Your task to perform on an android device: Open my contact list Image 0: 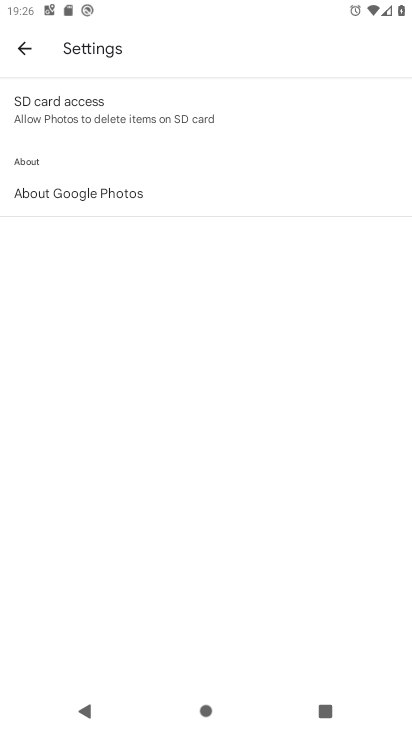
Step 0: press home button
Your task to perform on an android device: Open my contact list Image 1: 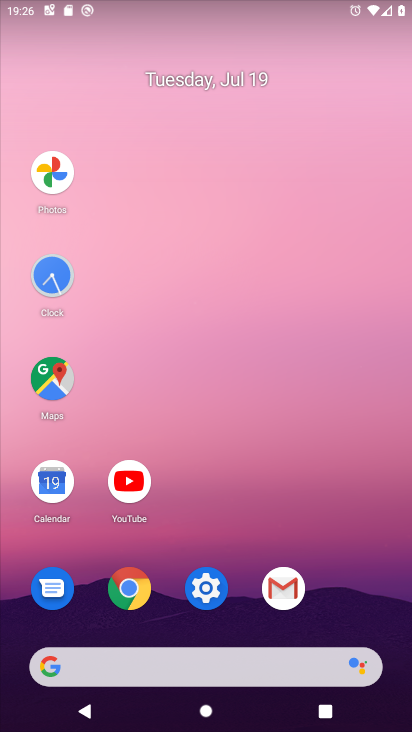
Step 1: drag from (215, 518) to (130, 45)
Your task to perform on an android device: Open my contact list Image 2: 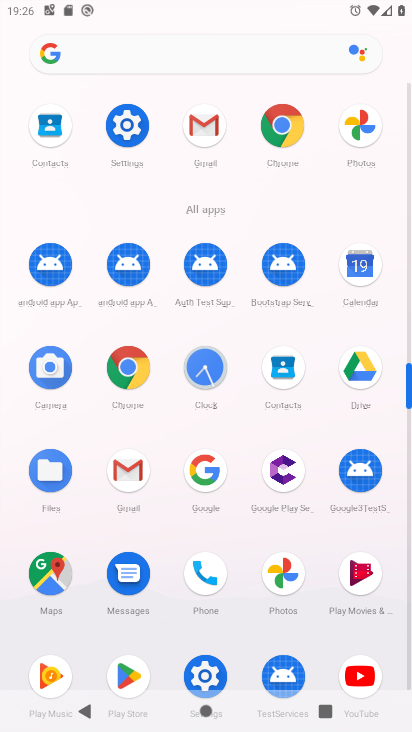
Step 2: click (276, 378)
Your task to perform on an android device: Open my contact list Image 3: 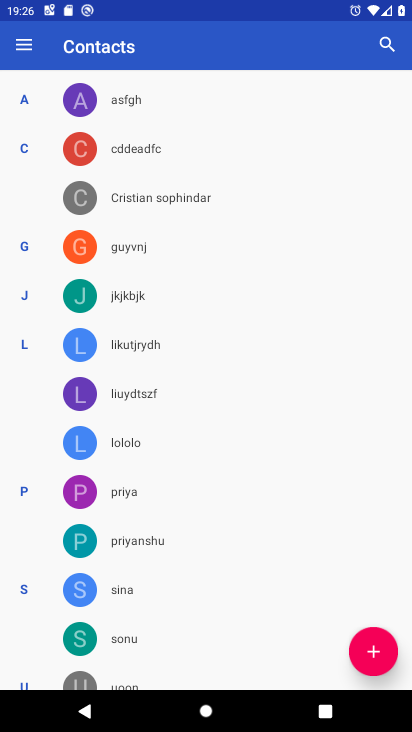
Step 3: task complete